Your task to perform on an android device: clear all cookies in the chrome app Image 0: 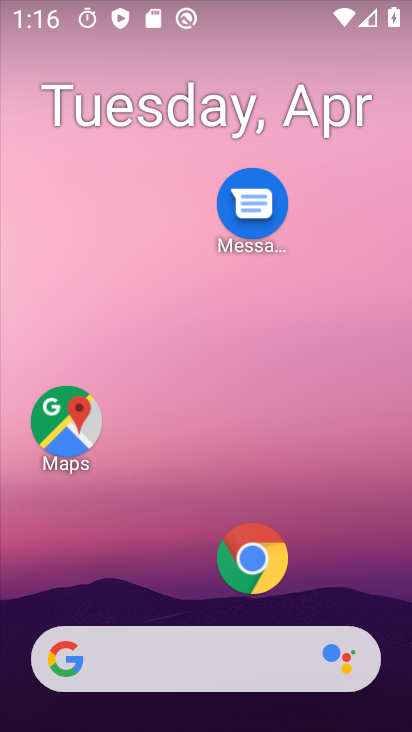
Step 0: drag from (198, 598) to (207, 311)
Your task to perform on an android device: clear all cookies in the chrome app Image 1: 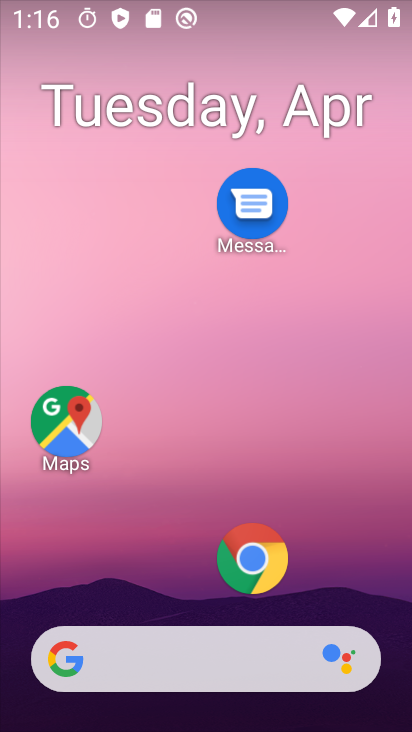
Step 1: drag from (147, 560) to (212, 139)
Your task to perform on an android device: clear all cookies in the chrome app Image 2: 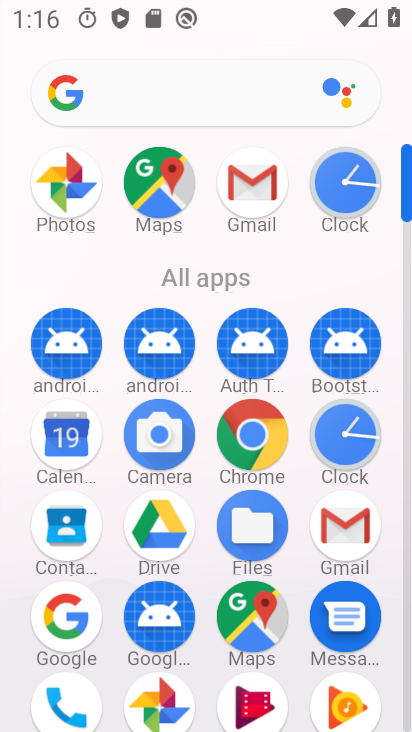
Step 2: click (250, 430)
Your task to perform on an android device: clear all cookies in the chrome app Image 3: 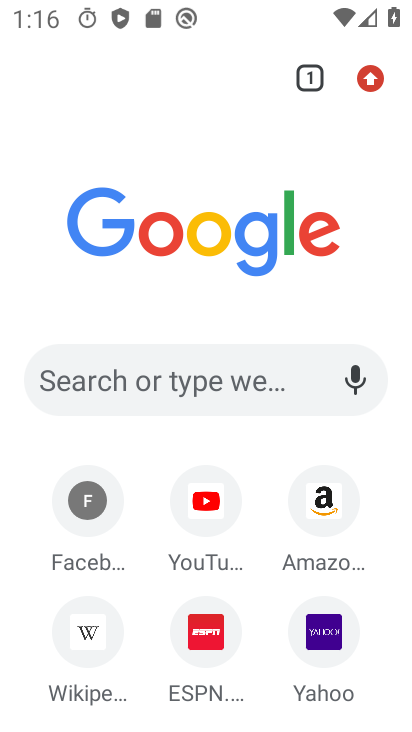
Step 3: click (368, 88)
Your task to perform on an android device: clear all cookies in the chrome app Image 4: 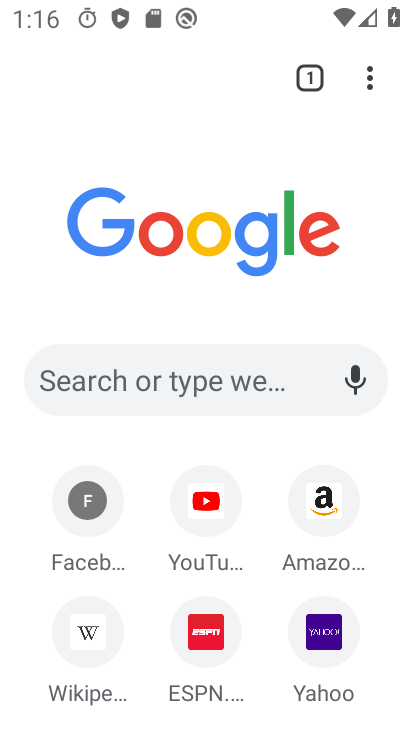
Step 4: click (372, 87)
Your task to perform on an android device: clear all cookies in the chrome app Image 5: 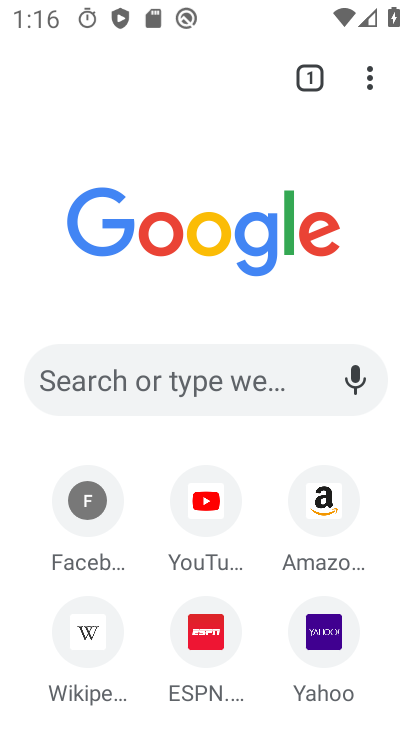
Step 5: drag from (182, 598) to (202, 314)
Your task to perform on an android device: clear all cookies in the chrome app Image 6: 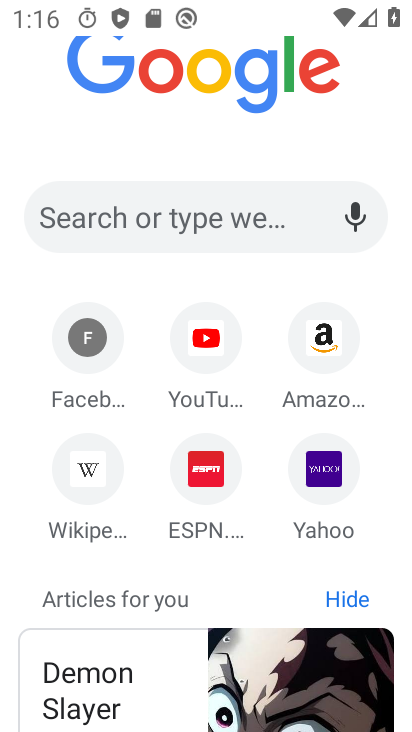
Step 6: drag from (370, 77) to (343, 426)
Your task to perform on an android device: clear all cookies in the chrome app Image 7: 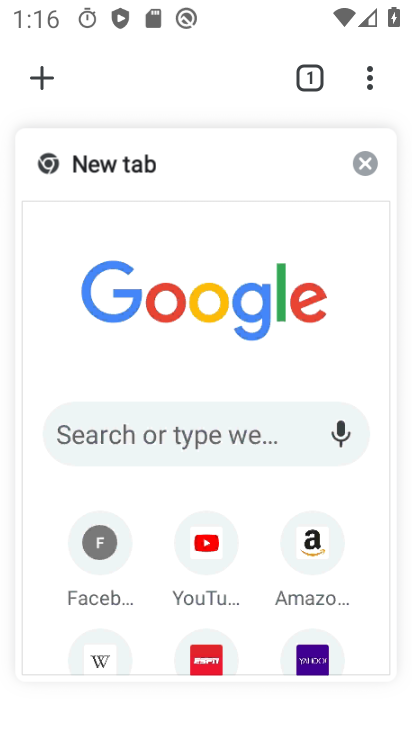
Step 7: drag from (201, 157) to (242, 471)
Your task to perform on an android device: clear all cookies in the chrome app Image 8: 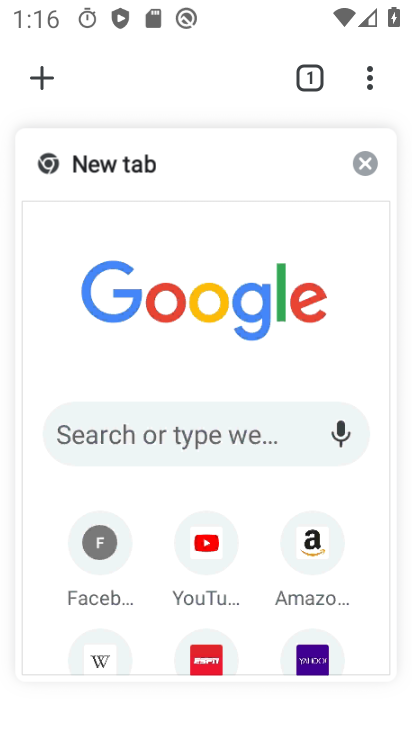
Step 8: click (228, 370)
Your task to perform on an android device: clear all cookies in the chrome app Image 9: 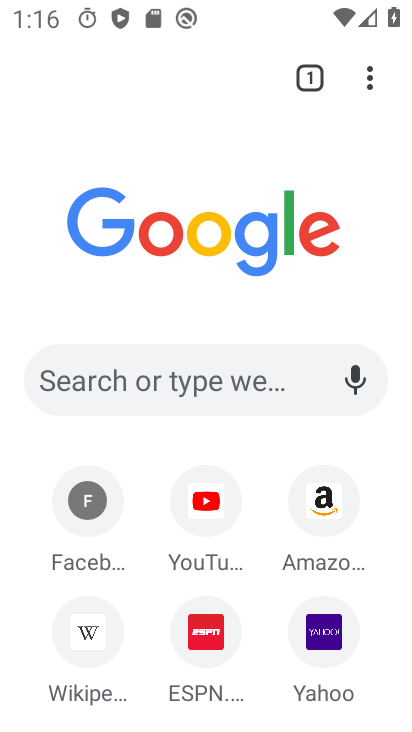
Step 9: click (372, 73)
Your task to perform on an android device: clear all cookies in the chrome app Image 10: 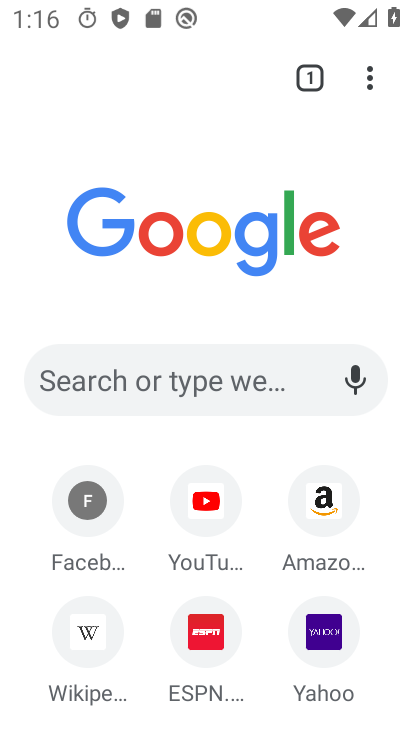
Step 10: task complete